Your task to perform on an android device: turn pop-ups on in chrome Image 0: 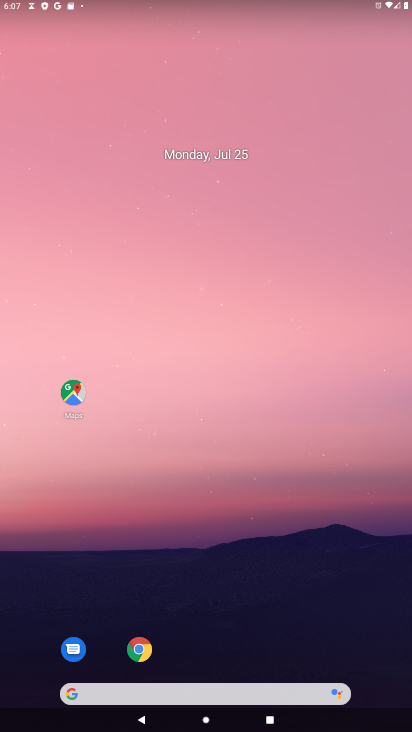
Step 0: drag from (273, 692) to (353, 2)
Your task to perform on an android device: turn pop-ups on in chrome Image 1: 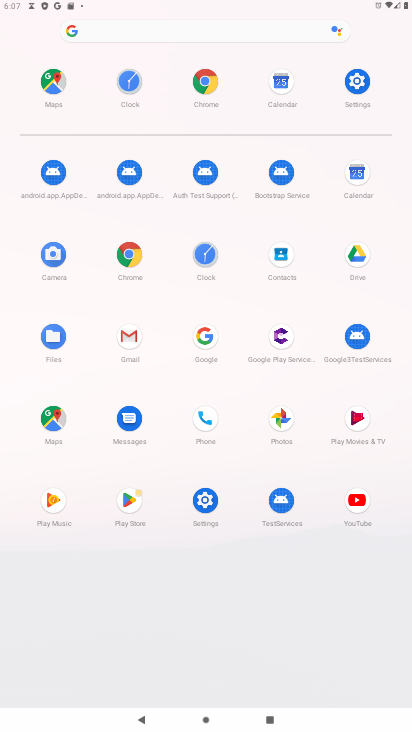
Step 1: click (131, 259)
Your task to perform on an android device: turn pop-ups on in chrome Image 2: 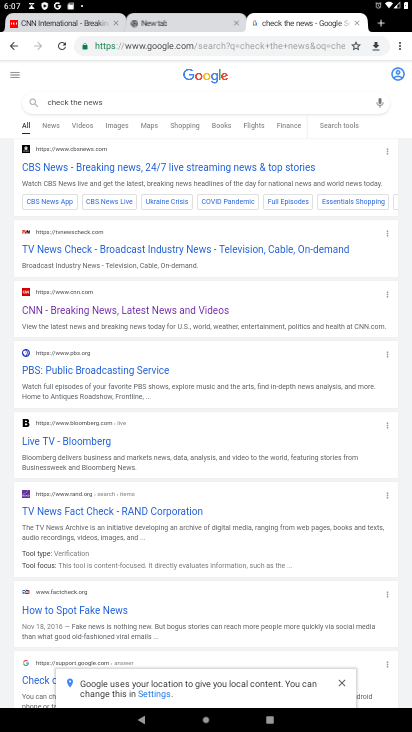
Step 2: drag from (398, 47) to (359, 245)
Your task to perform on an android device: turn pop-ups on in chrome Image 3: 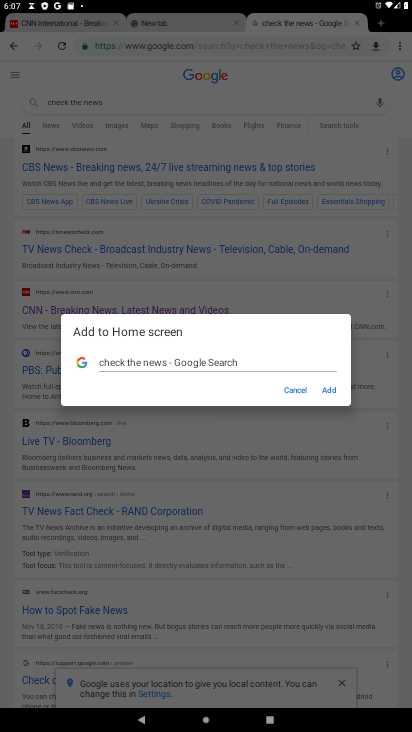
Step 3: click (307, 286)
Your task to perform on an android device: turn pop-ups on in chrome Image 4: 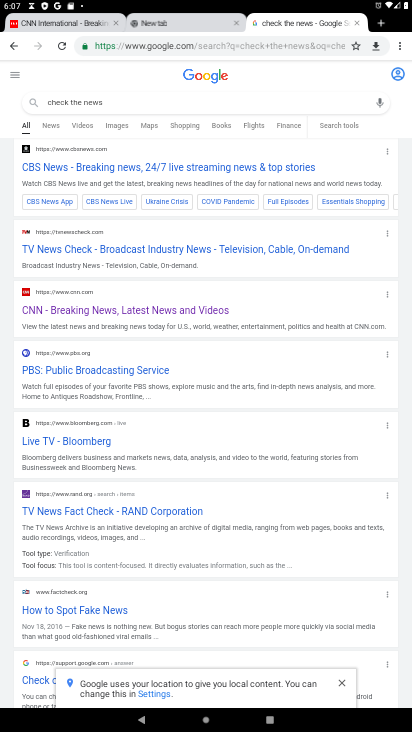
Step 4: drag from (399, 45) to (314, 288)
Your task to perform on an android device: turn pop-ups on in chrome Image 5: 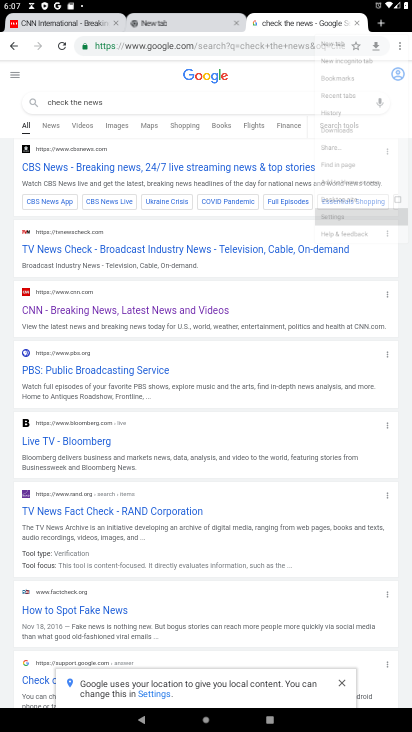
Step 5: click (315, 288)
Your task to perform on an android device: turn pop-ups on in chrome Image 6: 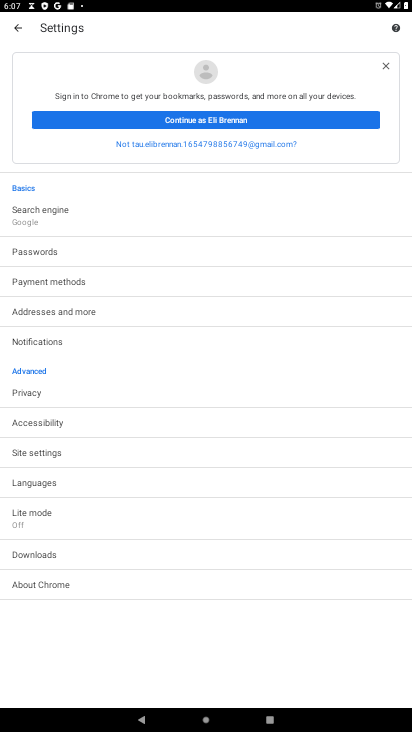
Step 6: click (51, 460)
Your task to perform on an android device: turn pop-ups on in chrome Image 7: 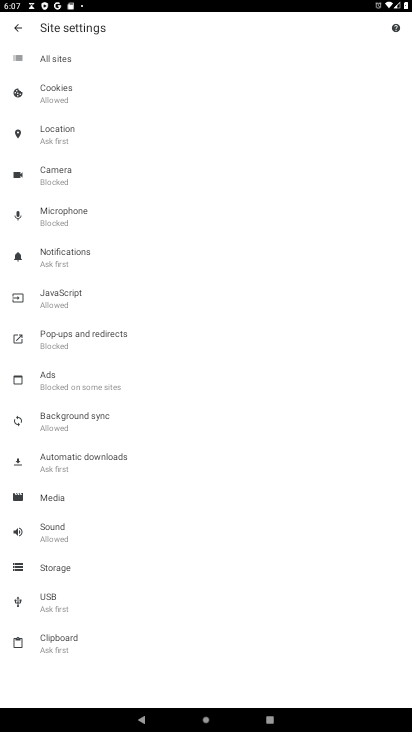
Step 7: click (114, 341)
Your task to perform on an android device: turn pop-ups on in chrome Image 8: 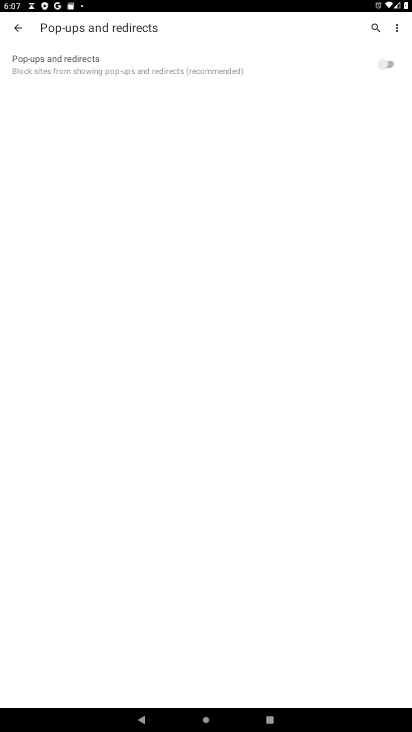
Step 8: task complete